Your task to perform on an android device: change notifications settings Image 0: 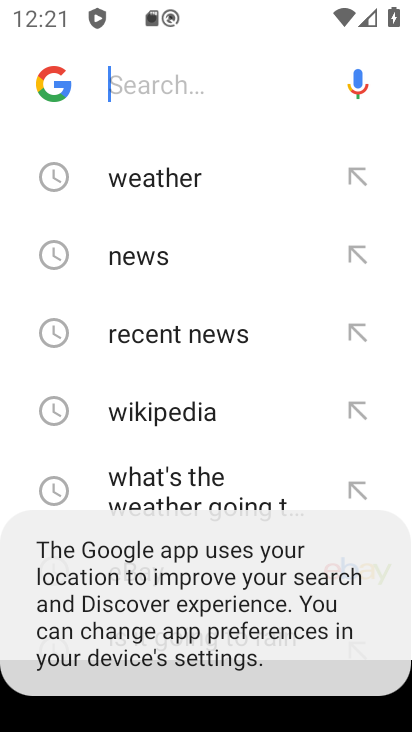
Step 0: press home button
Your task to perform on an android device: change notifications settings Image 1: 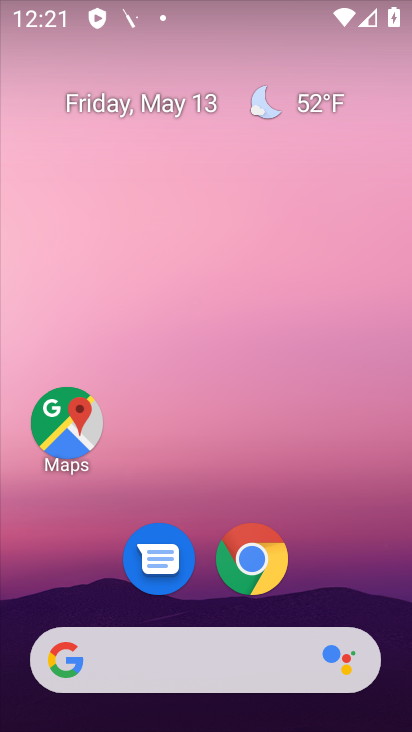
Step 1: drag from (380, 576) to (339, 145)
Your task to perform on an android device: change notifications settings Image 2: 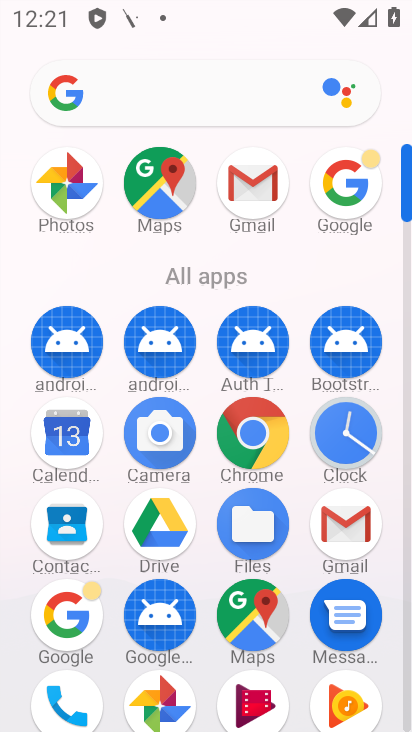
Step 2: drag from (293, 639) to (330, 334)
Your task to perform on an android device: change notifications settings Image 3: 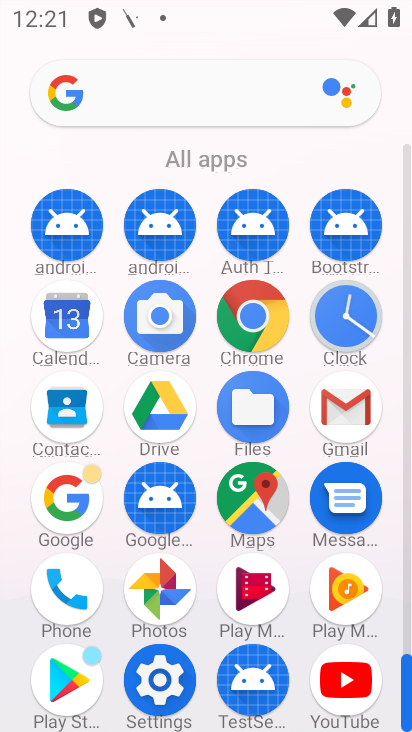
Step 3: click (153, 672)
Your task to perform on an android device: change notifications settings Image 4: 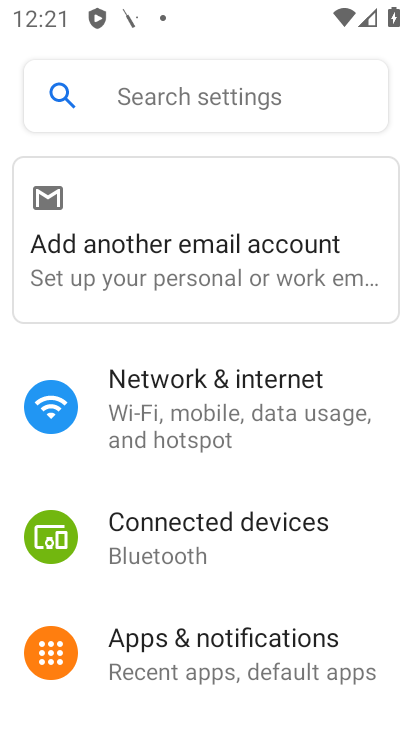
Step 4: click (256, 399)
Your task to perform on an android device: change notifications settings Image 5: 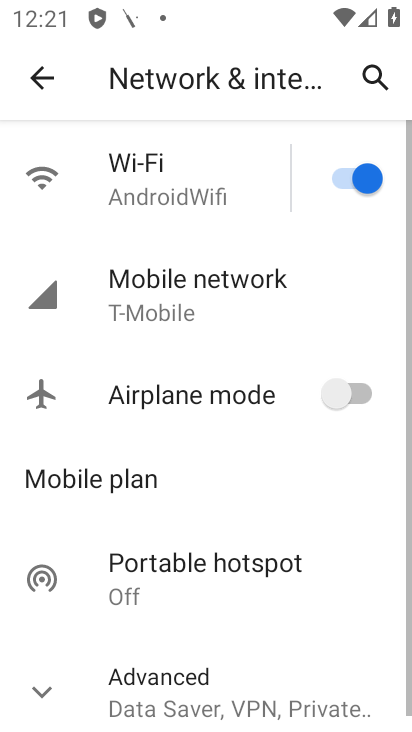
Step 5: click (34, 76)
Your task to perform on an android device: change notifications settings Image 6: 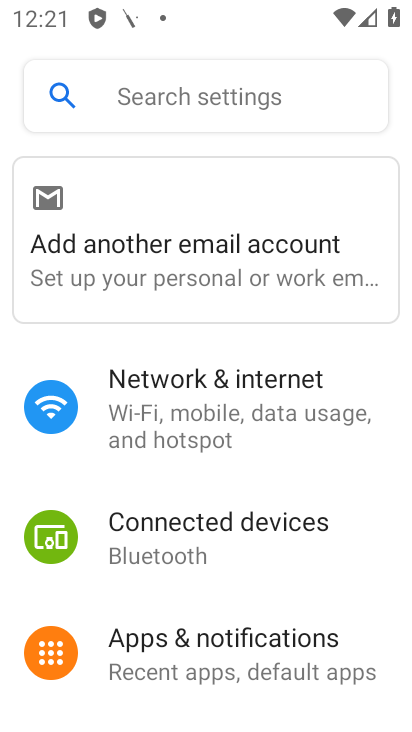
Step 6: click (270, 644)
Your task to perform on an android device: change notifications settings Image 7: 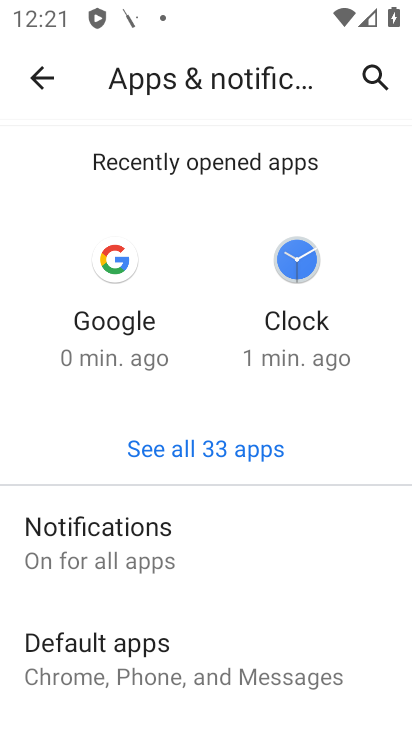
Step 7: click (148, 520)
Your task to perform on an android device: change notifications settings Image 8: 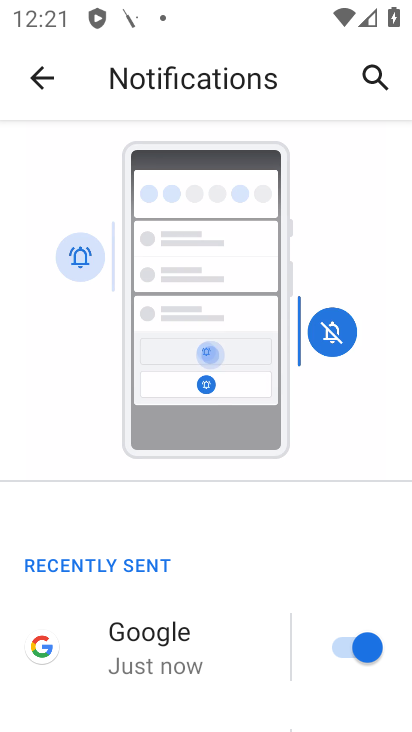
Step 8: drag from (243, 684) to (251, 249)
Your task to perform on an android device: change notifications settings Image 9: 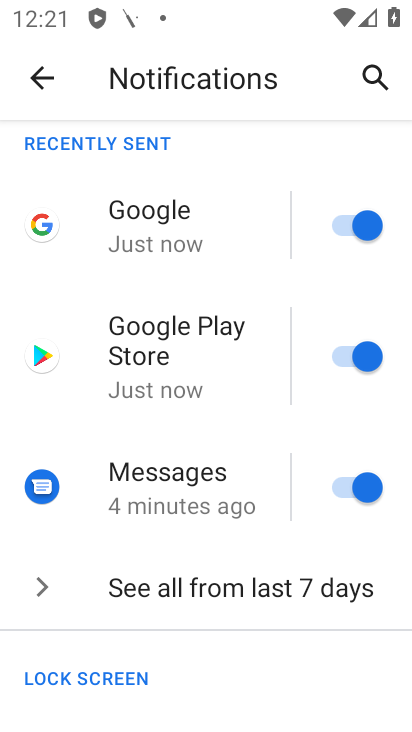
Step 9: click (359, 357)
Your task to perform on an android device: change notifications settings Image 10: 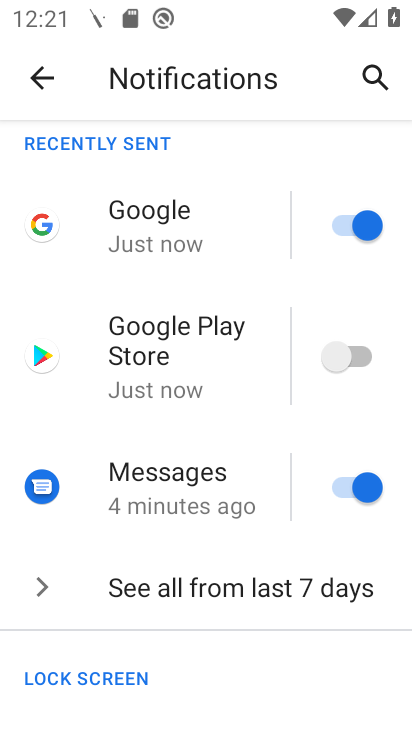
Step 10: task complete